Your task to perform on an android device: toggle data saver in the chrome app Image 0: 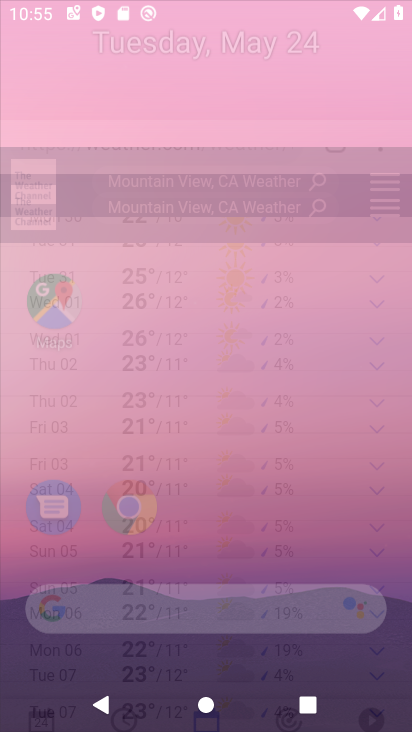
Step 0: press home button
Your task to perform on an android device: toggle data saver in the chrome app Image 1: 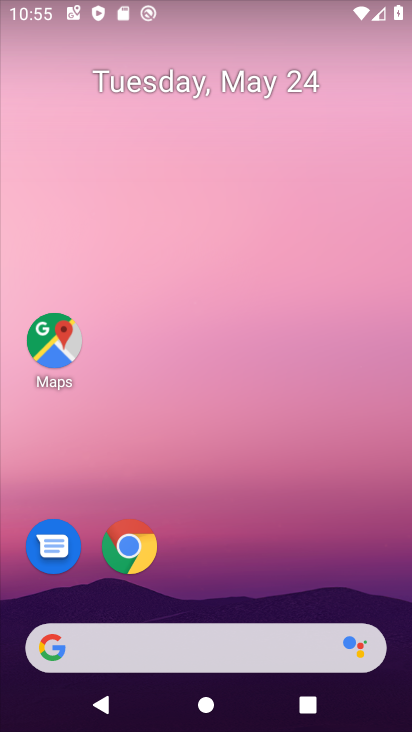
Step 1: click (126, 534)
Your task to perform on an android device: toggle data saver in the chrome app Image 2: 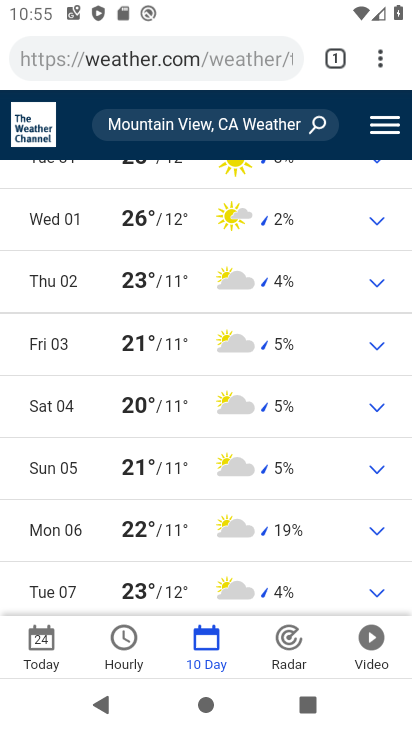
Step 2: click (378, 64)
Your task to perform on an android device: toggle data saver in the chrome app Image 3: 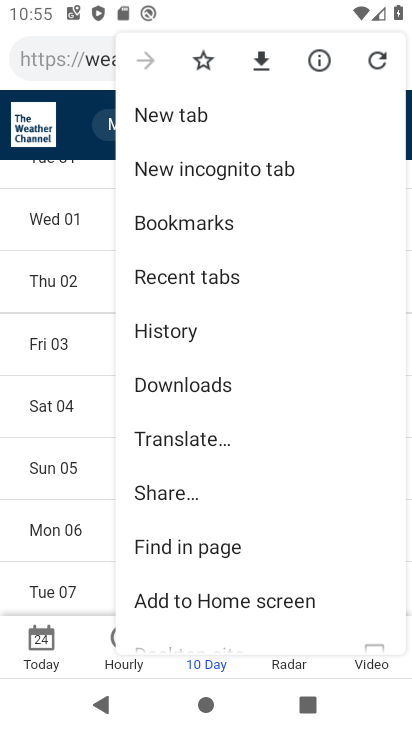
Step 3: drag from (135, 621) to (242, 135)
Your task to perform on an android device: toggle data saver in the chrome app Image 4: 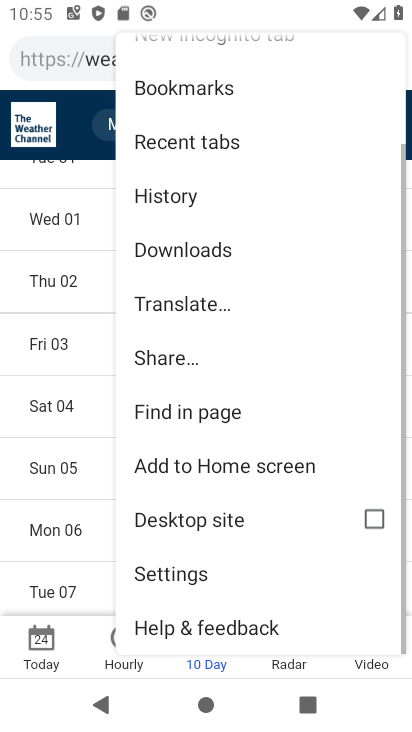
Step 4: click (148, 563)
Your task to perform on an android device: toggle data saver in the chrome app Image 5: 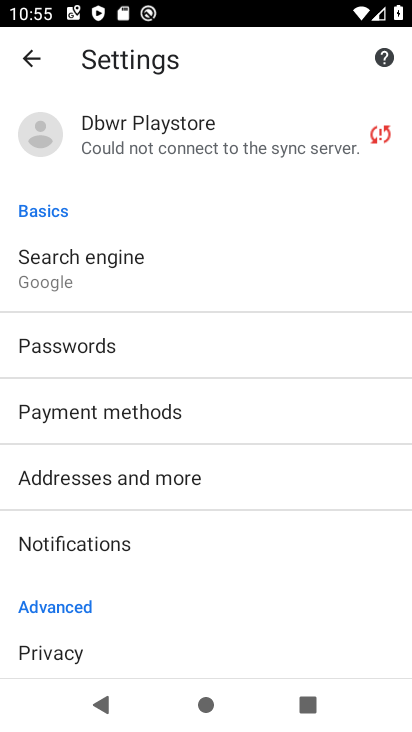
Step 5: drag from (148, 563) to (193, 148)
Your task to perform on an android device: toggle data saver in the chrome app Image 6: 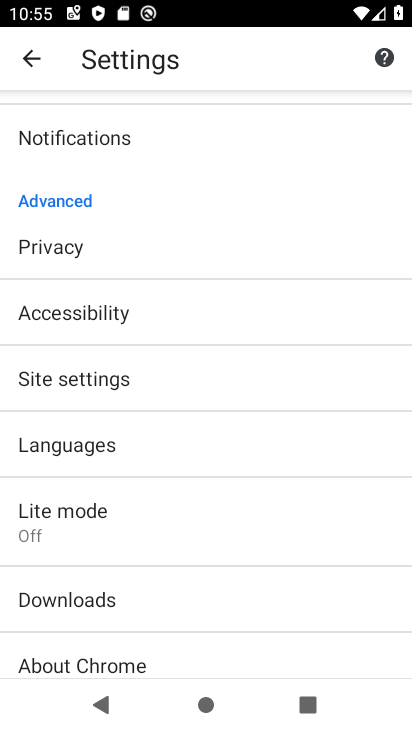
Step 6: click (51, 523)
Your task to perform on an android device: toggle data saver in the chrome app Image 7: 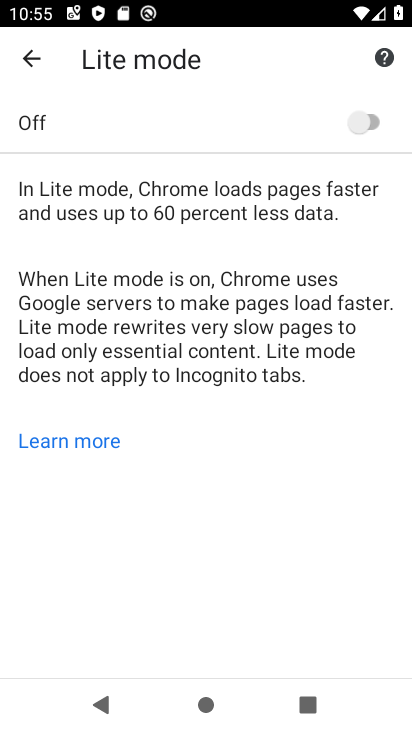
Step 7: click (373, 118)
Your task to perform on an android device: toggle data saver in the chrome app Image 8: 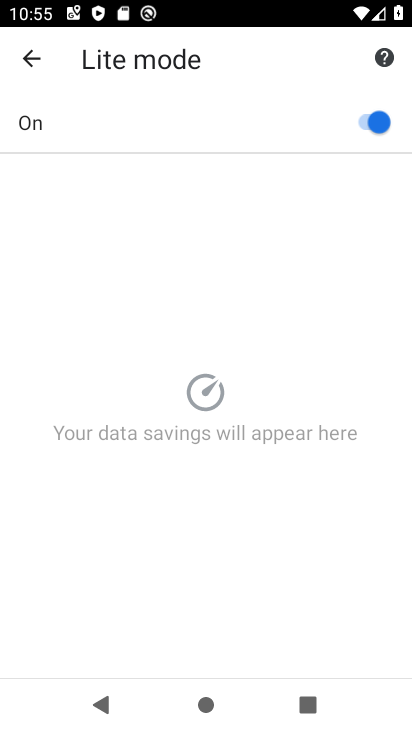
Step 8: click (373, 118)
Your task to perform on an android device: toggle data saver in the chrome app Image 9: 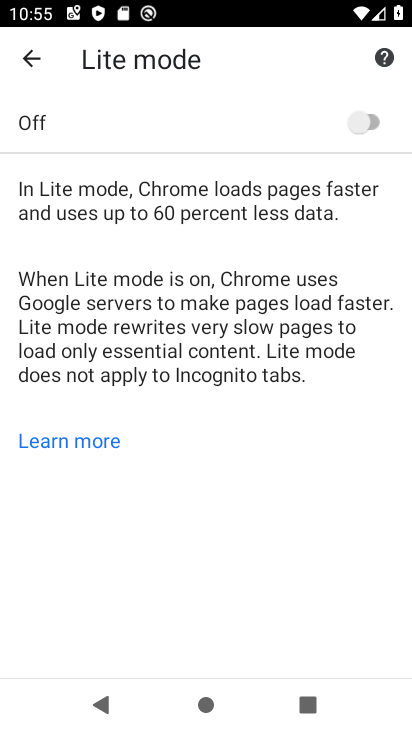
Step 9: click (373, 118)
Your task to perform on an android device: toggle data saver in the chrome app Image 10: 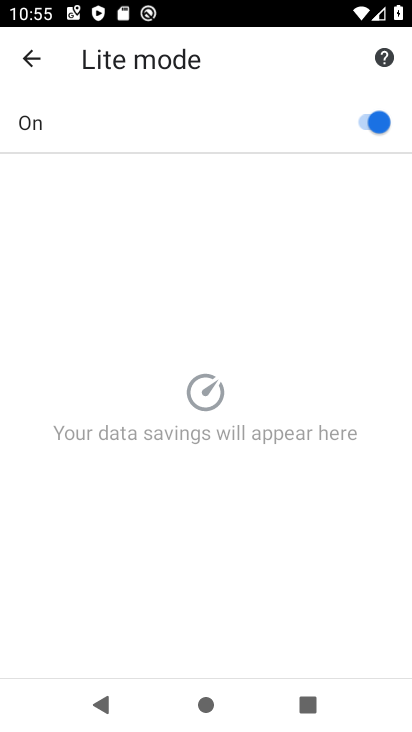
Step 10: task complete